Your task to perform on an android device: turn on the 12-hour format for clock Image 0: 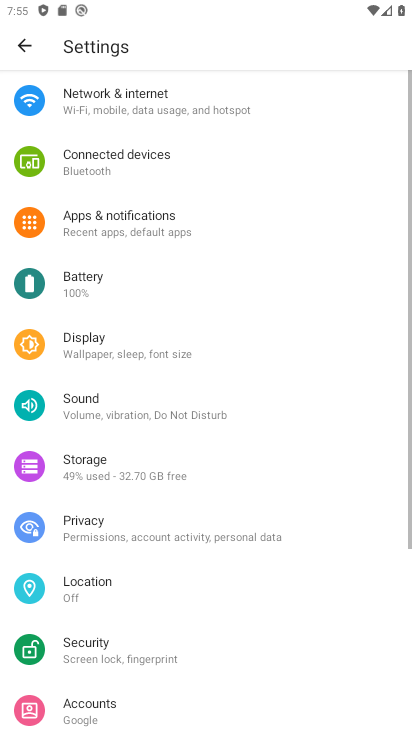
Step 0: press home button
Your task to perform on an android device: turn on the 12-hour format for clock Image 1: 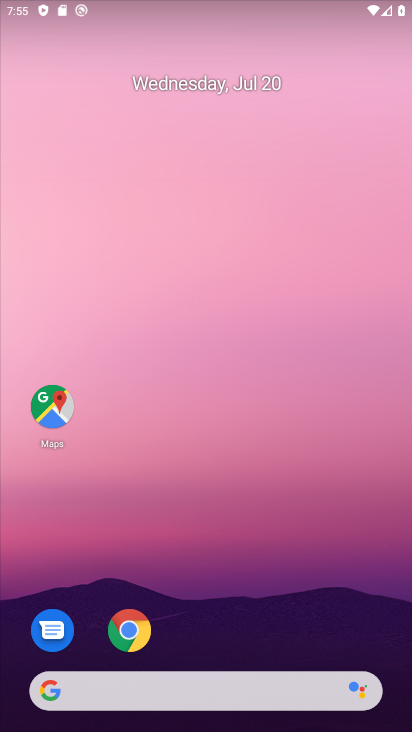
Step 1: drag from (237, 639) to (256, 148)
Your task to perform on an android device: turn on the 12-hour format for clock Image 2: 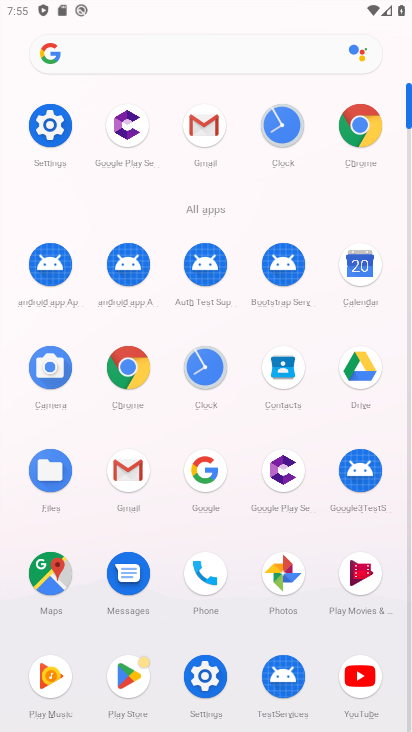
Step 2: click (205, 369)
Your task to perform on an android device: turn on the 12-hour format for clock Image 3: 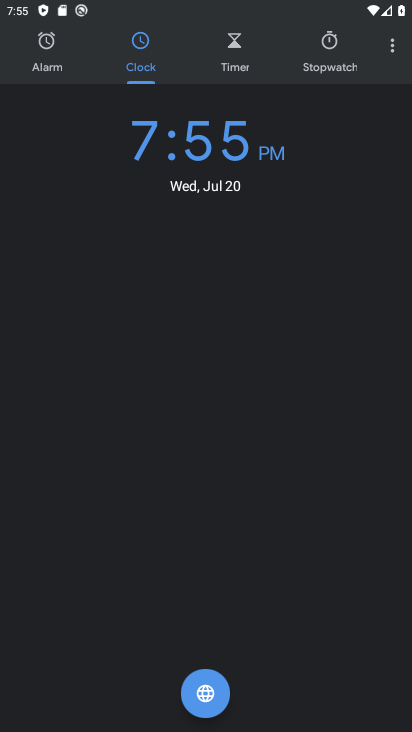
Step 3: click (385, 40)
Your task to perform on an android device: turn on the 12-hour format for clock Image 4: 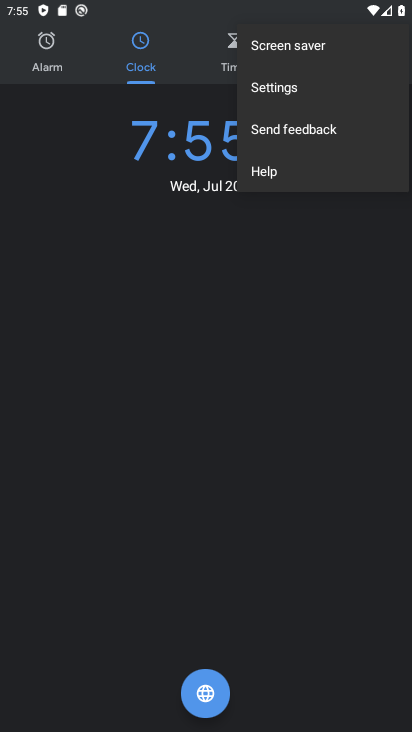
Step 4: click (317, 79)
Your task to perform on an android device: turn on the 12-hour format for clock Image 5: 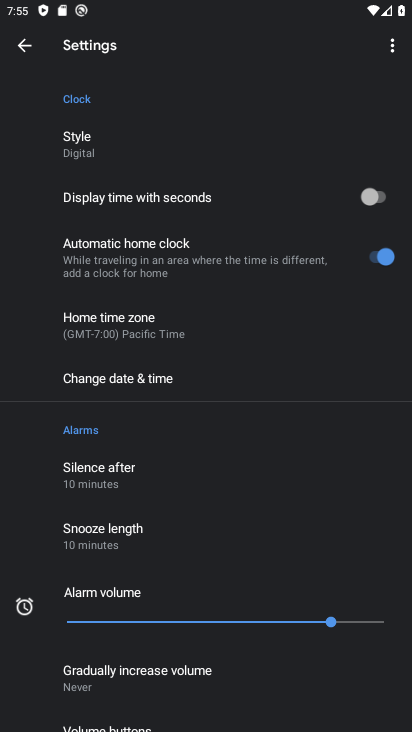
Step 5: click (138, 379)
Your task to perform on an android device: turn on the 12-hour format for clock Image 6: 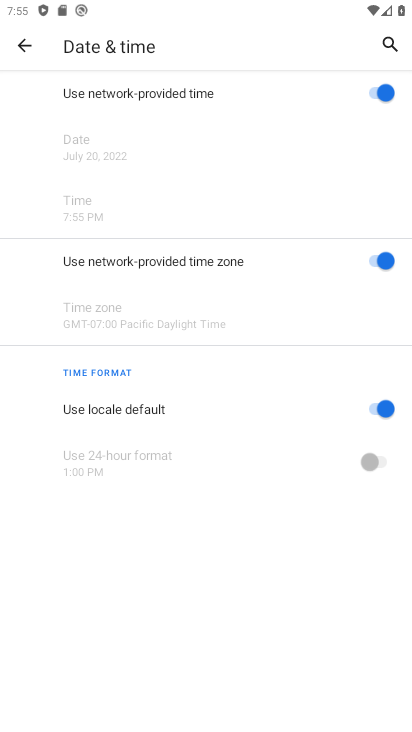
Step 6: click (393, 398)
Your task to perform on an android device: turn on the 12-hour format for clock Image 7: 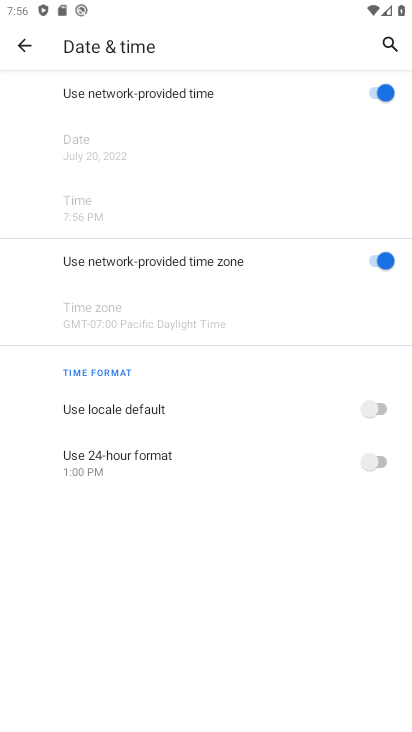
Step 7: task complete